Your task to perform on an android device: Show me popular games on the Play Store Image 0: 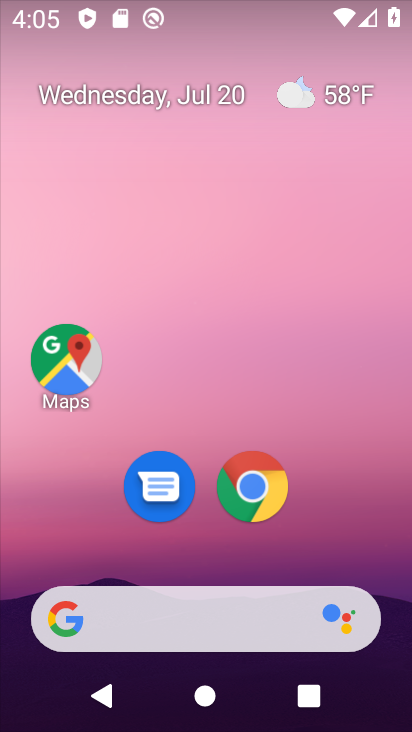
Step 0: drag from (112, 559) to (177, 0)
Your task to perform on an android device: Show me popular games on the Play Store Image 1: 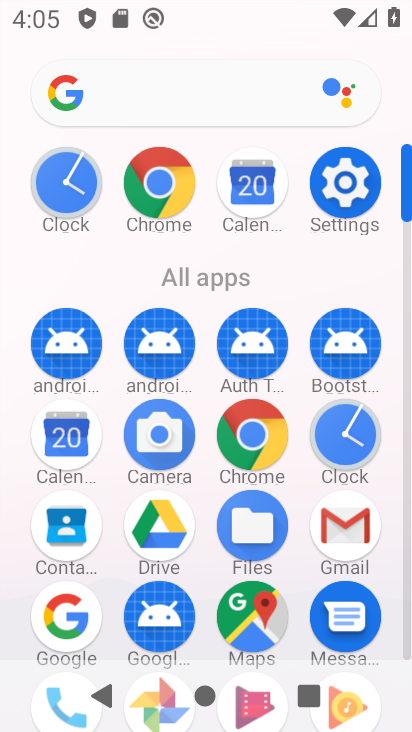
Step 1: drag from (189, 629) to (256, 94)
Your task to perform on an android device: Show me popular games on the Play Store Image 2: 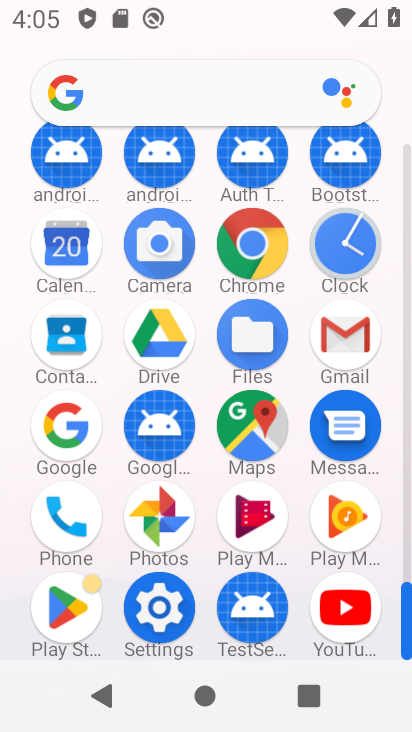
Step 2: click (64, 615)
Your task to perform on an android device: Show me popular games on the Play Store Image 3: 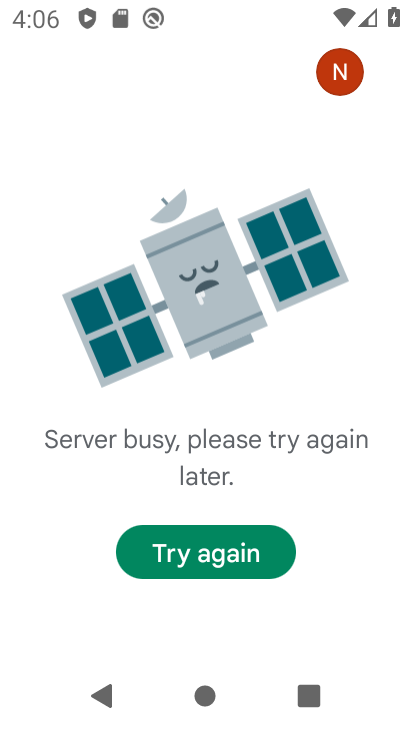
Step 3: task complete